Your task to perform on an android device: turn off data saver in the chrome app Image 0: 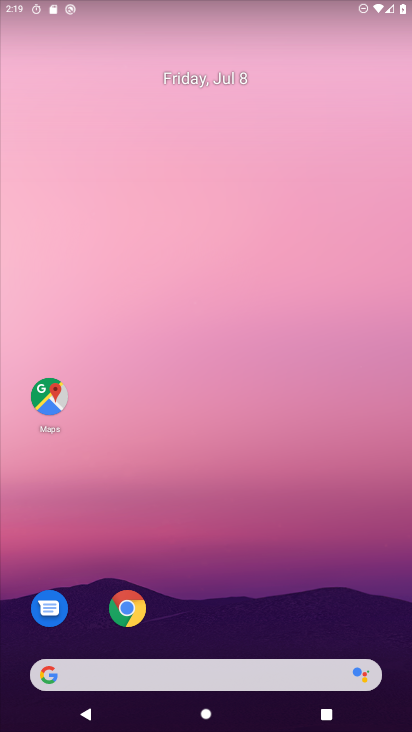
Step 0: click (128, 609)
Your task to perform on an android device: turn off data saver in the chrome app Image 1: 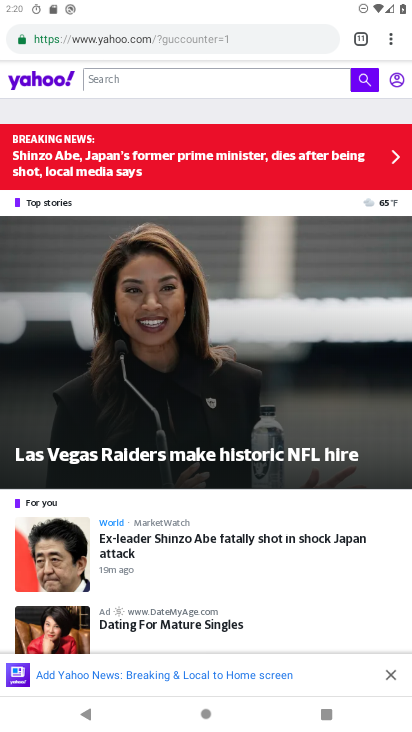
Step 1: click (392, 43)
Your task to perform on an android device: turn off data saver in the chrome app Image 2: 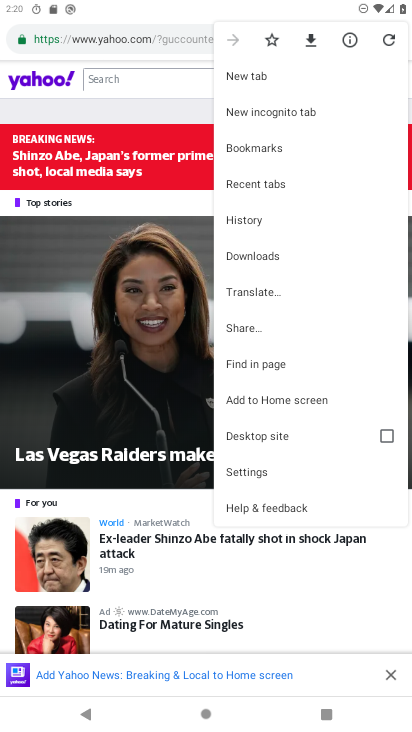
Step 2: click (239, 470)
Your task to perform on an android device: turn off data saver in the chrome app Image 3: 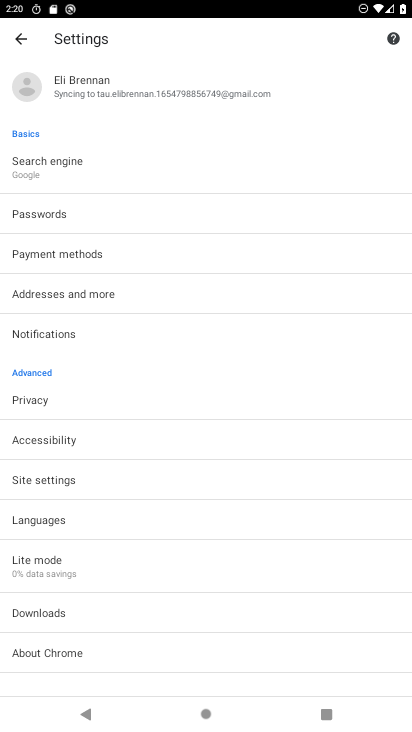
Step 3: click (48, 565)
Your task to perform on an android device: turn off data saver in the chrome app Image 4: 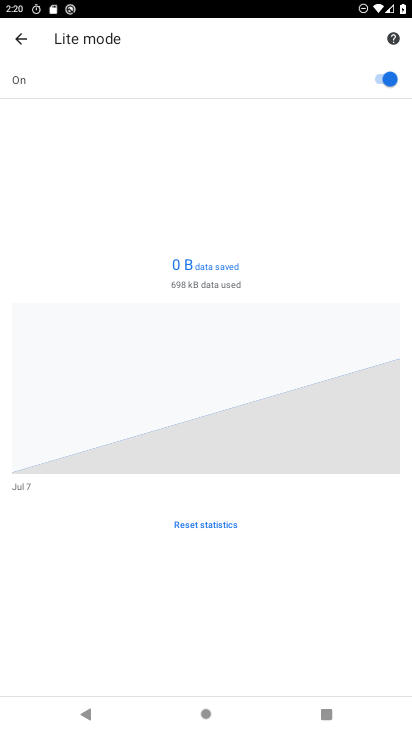
Step 4: click (382, 77)
Your task to perform on an android device: turn off data saver in the chrome app Image 5: 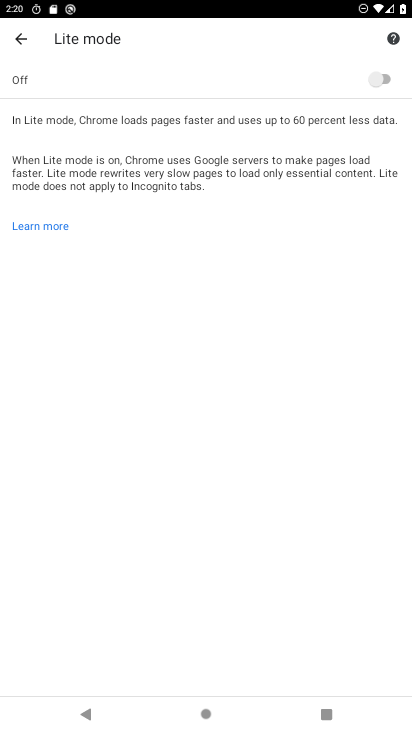
Step 5: task complete